Your task to perform on an android device: change the clock display to show seconds Image 0: 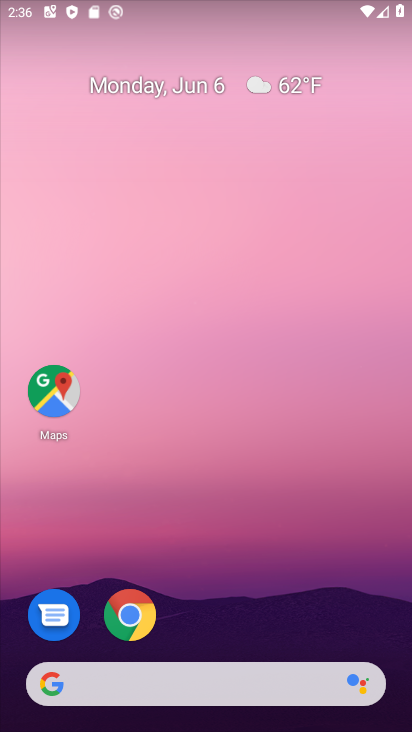
Step 0: drag from (243, 664) to (278, 15)
Your task to perform on an android device: change the clock display to show seconds Image 1: 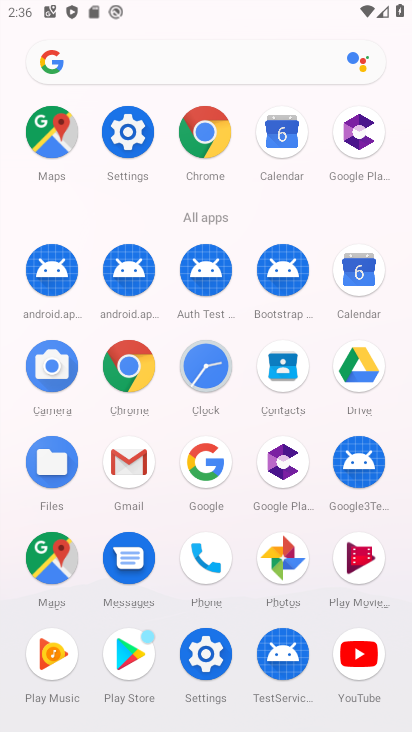
Step 1: click (197, 386)
Your task to perform on an android device: change the clock display to show seconds Image 2: 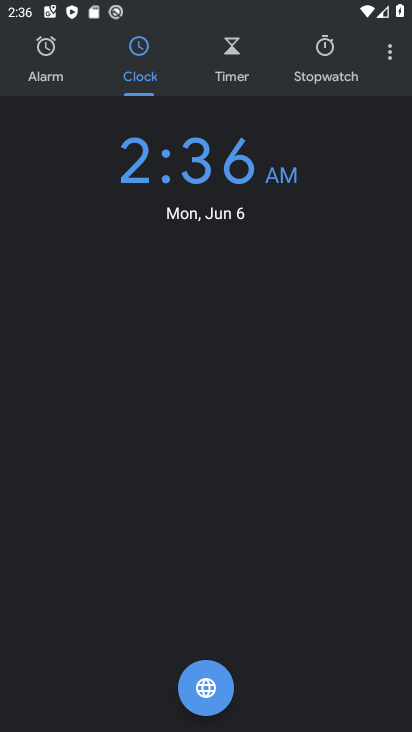
Step 2: click (392, 52)
Your task to perform on an android device: change the clock display to show seconds Image 3: 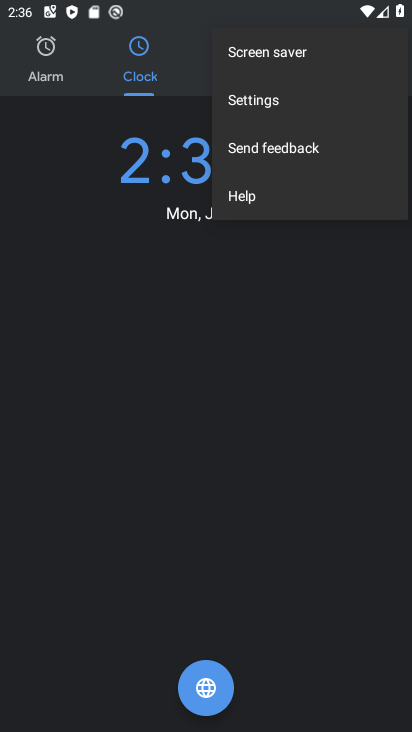
Step 3: click (276, 101)
Your task to perform on an android device: change the clock display to show seconds Image 4: 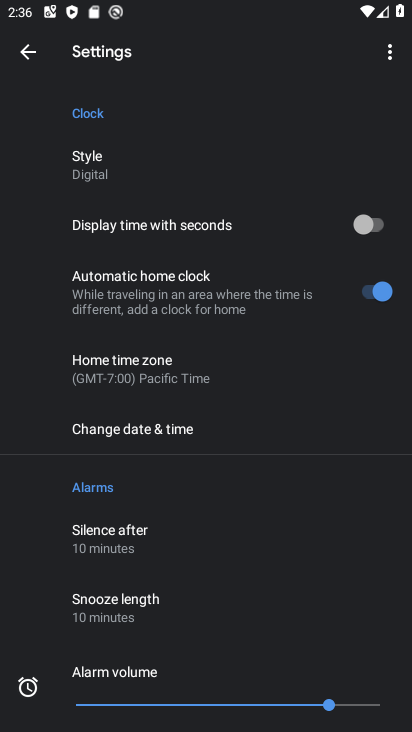
Step 4: click (374, 230)
Your task to perform on an android device: change the clock display to show seconds Image 5: 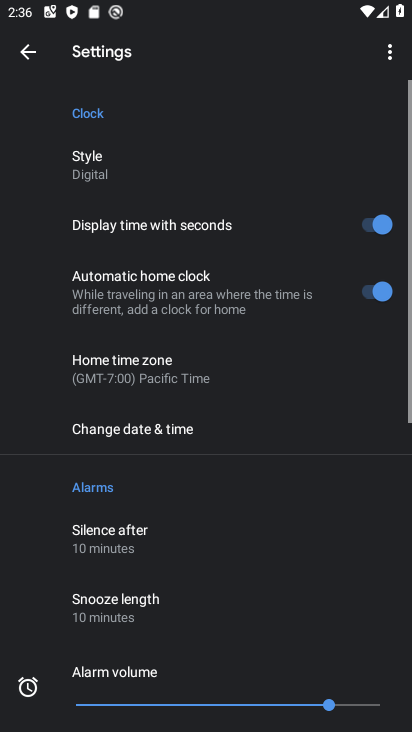
Step 5: task complete